Your task to perform on an android device: What's the weather going to be this weekend? Image 0: 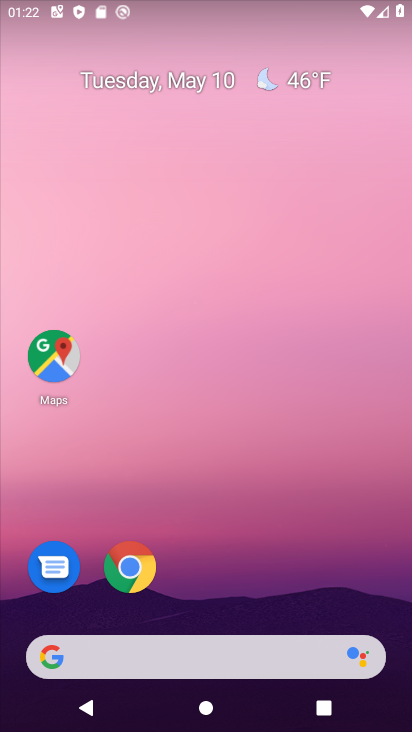
Step 0: click (127, 578)
Your task to perform on an android device: What's the weather going to be this weekend? Image 1: 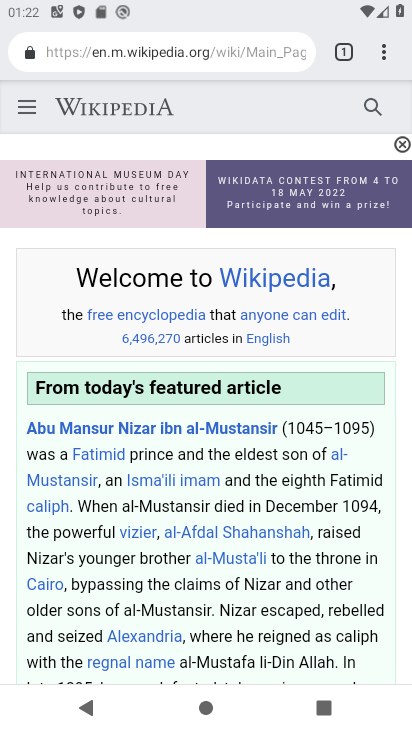
Step 1: click (162, 51)
Your task to perform on an android device: What's the weather going to be this weekend? Image 2: 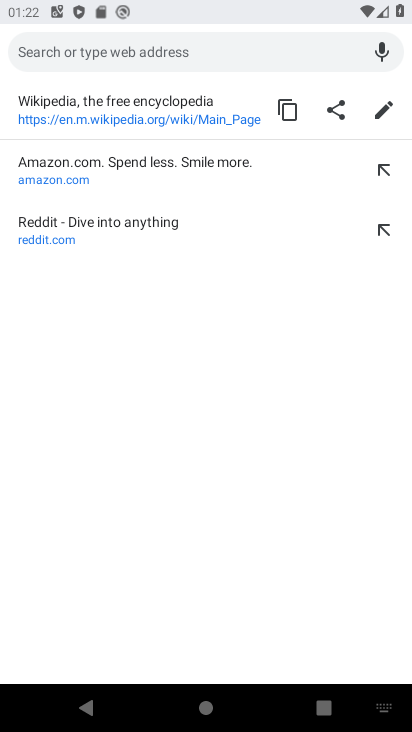
Step 2: type "whats the weather going to be this weekend?"
Your task to perform on an android device: What's the weather going to be this weekend? Image 3: 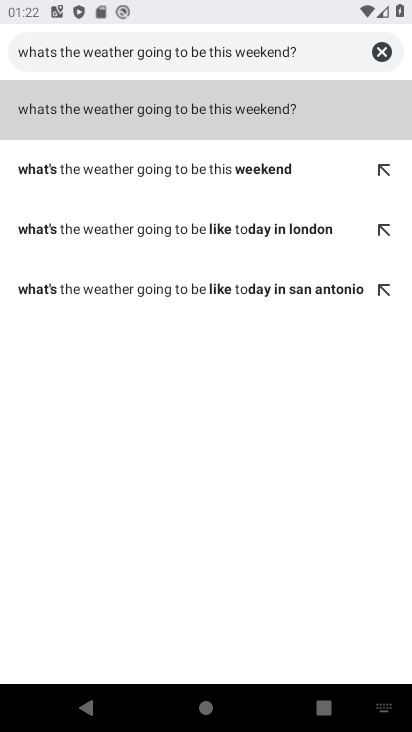
Step 3: click (238, 114)
Your task to perform on an android device: What's the weather going to be this weekend? Image 4: 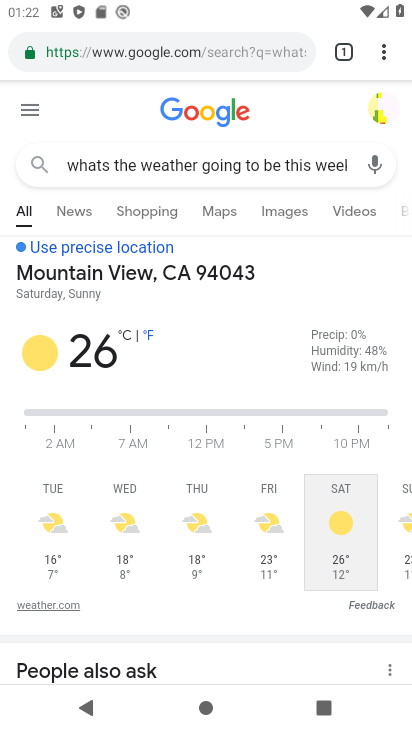
Step 4: task complete